Your task to perform on an android device: Open eBay Image 0: 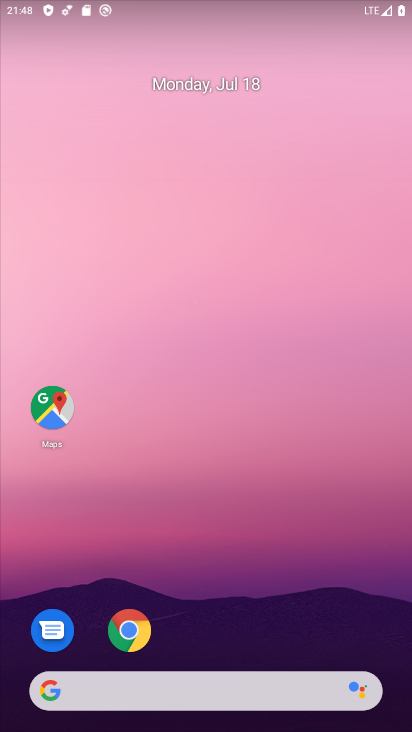
Step 0: click (138, 634)
Your task to perform on an android device: Open eBay Image 1: 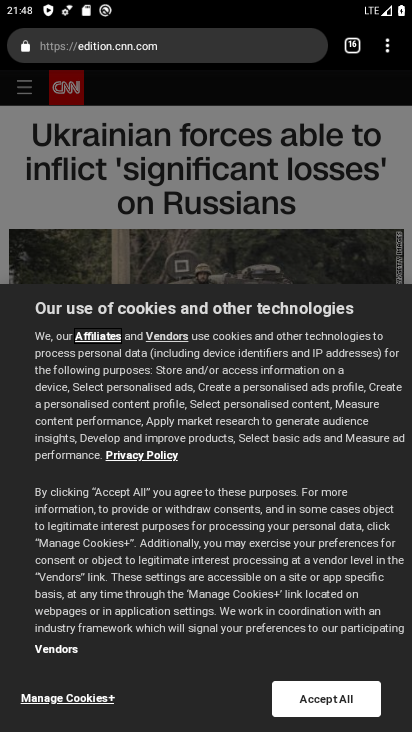
Step 1: click (387, 46)
Your task to perform on an android device: Open eBay Image 2: 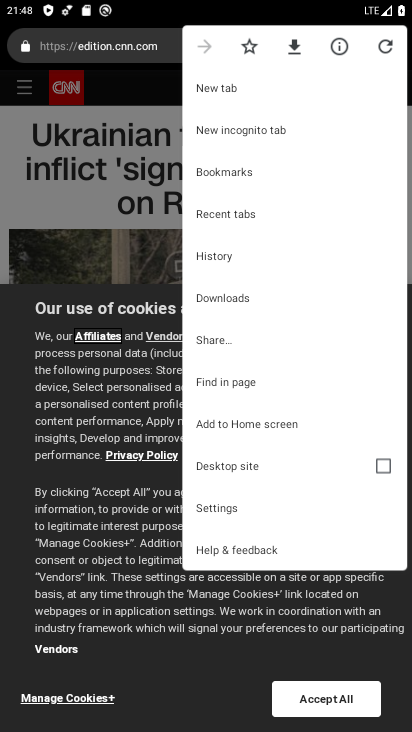
Step 2: click (252, 77)
Your task to perform on an android device: Open eBay Image 3: 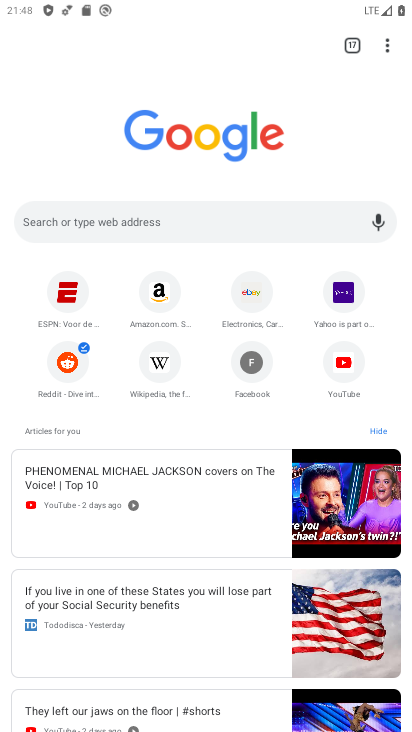
Step 3: click (249, 292)
Your task to perform on an android device: Open eBay Image 4: 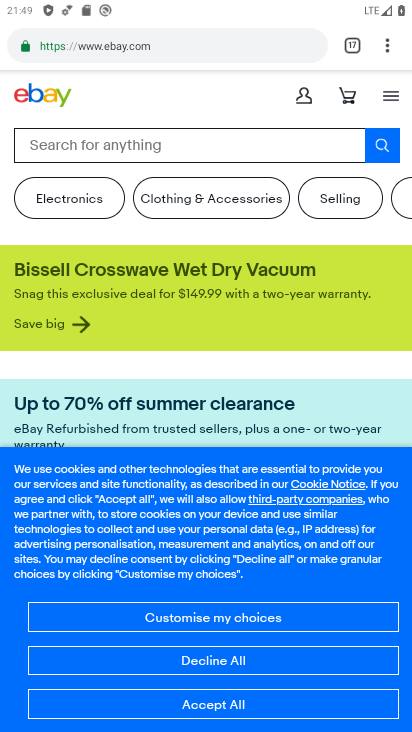
Step 4: task complete